Your task to perform on an android device: Open sound settings Image 0: 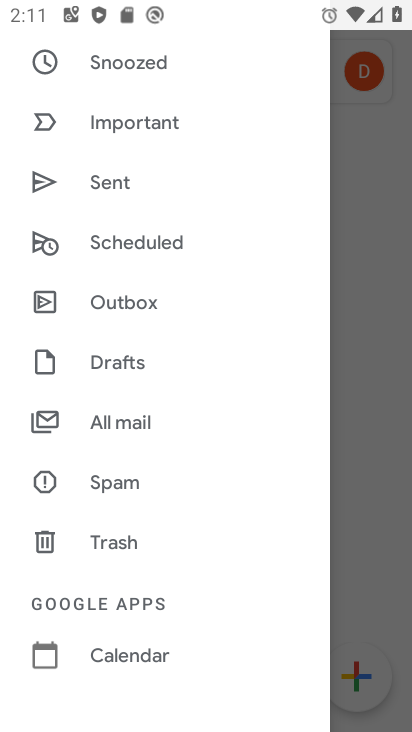
Step 0: click (338, 587)
Your task to perform on an android device: Open sound settings Image 1: 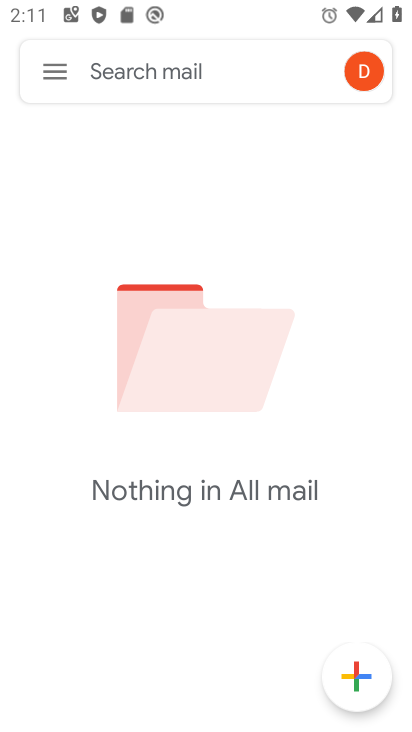
Step 1: press home button
Your task to perform on an android device: Open sound settings Image 2: 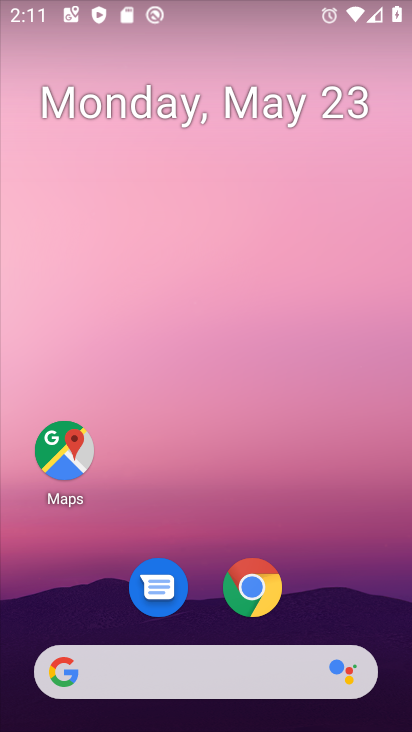
Step 2: drag from (340, 610) to (320, 180)
Your task to perform on an android device: Open sound settings Image 3: 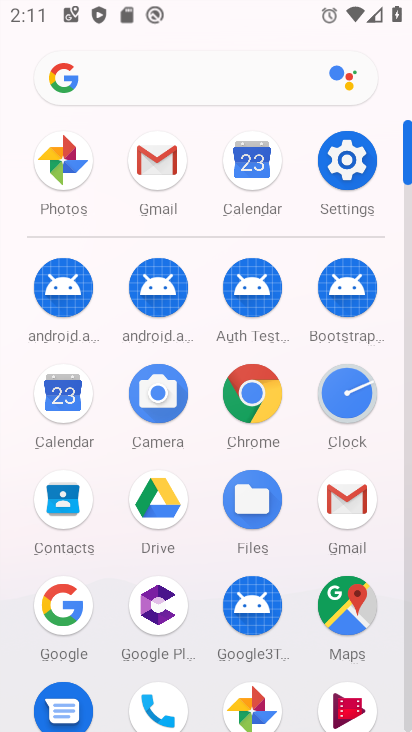
Step 3: click (324, 170)
Your task to perform on an android device: Open sound settings Image 4: 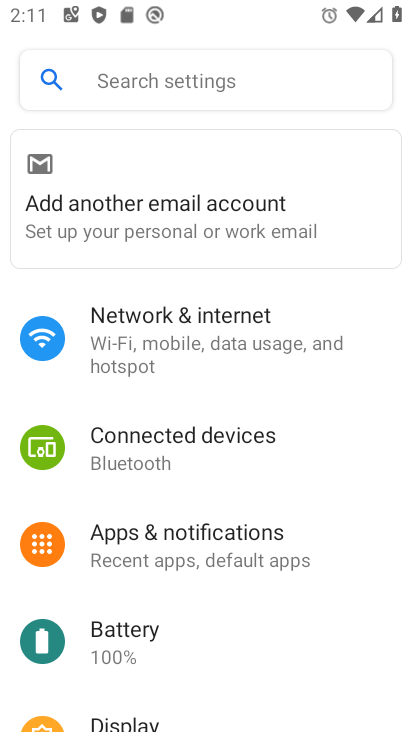
Step 4: drag from (176, 631) to (215, 325)
Your task to perform on an android device: Open sound settings Image 5: 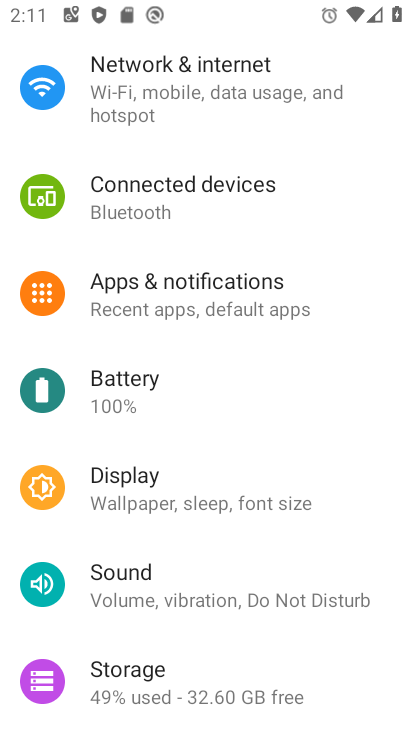
Step 5: click (238, 571)
Your task to perform on an android device: Open sound settings Image 6: 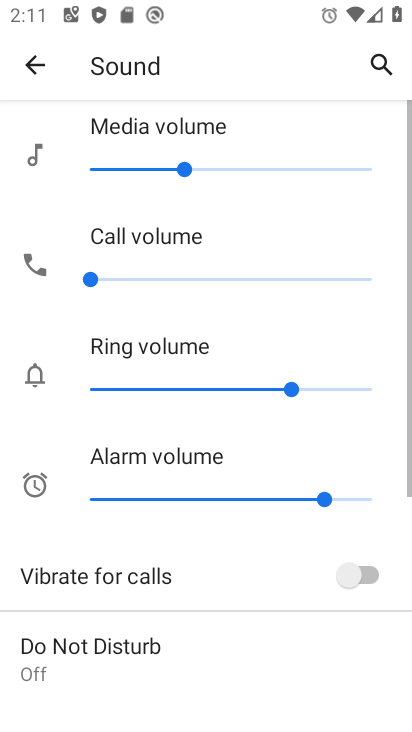
Step 6: task complete